Your task to perform on an android device: set an alarm Image 0: 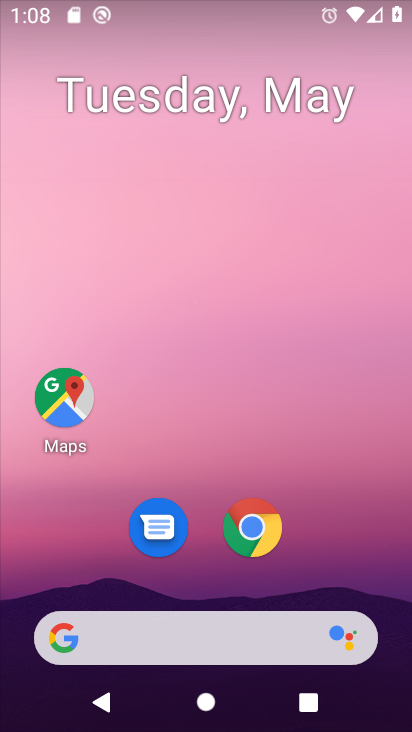
Step 0: drag from (255, 695) to (306, 0)
Your task to perform on an android device: set an alarm Image 1: 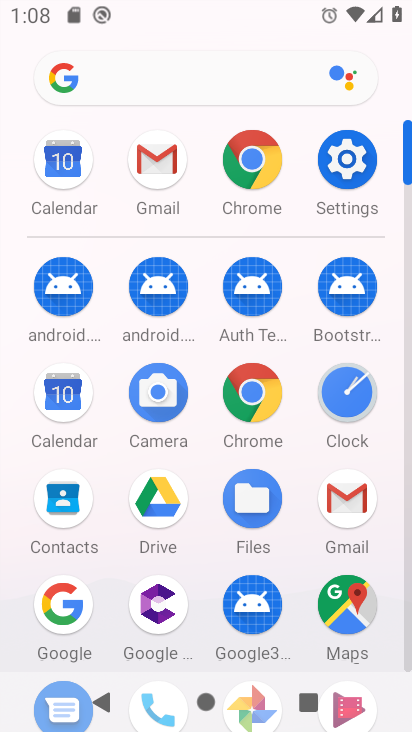
Step 1: click (338, 402)
Your task to perform on an android device: set an alarm Image 2: 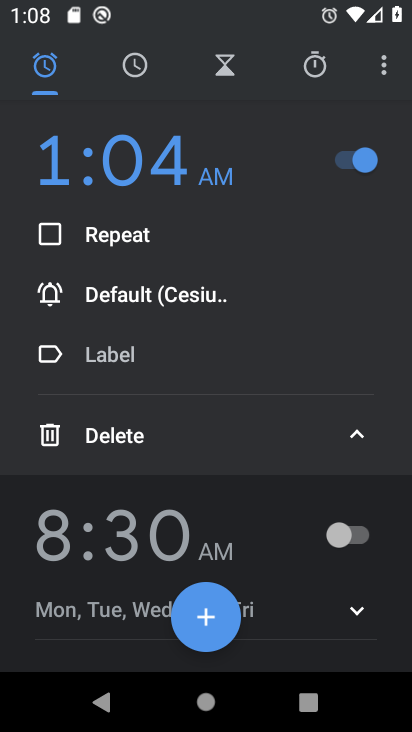
Step 2: click (191, 630)
Your task to perform on an android device: set an alarm Image 3: 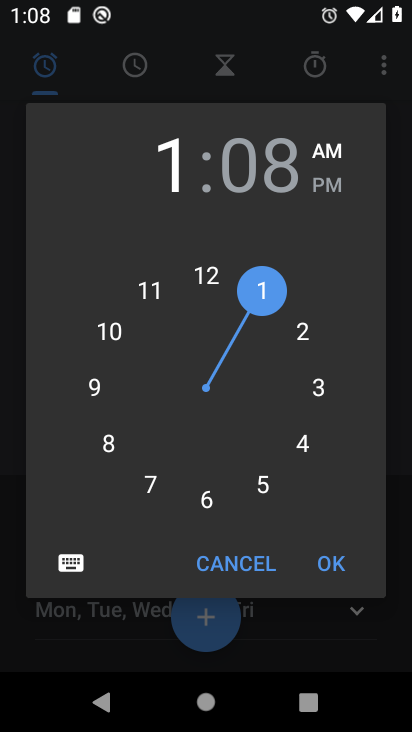
Step 3: click (325, 565)
Your task to perform on an android device: set an alarm Image 4: 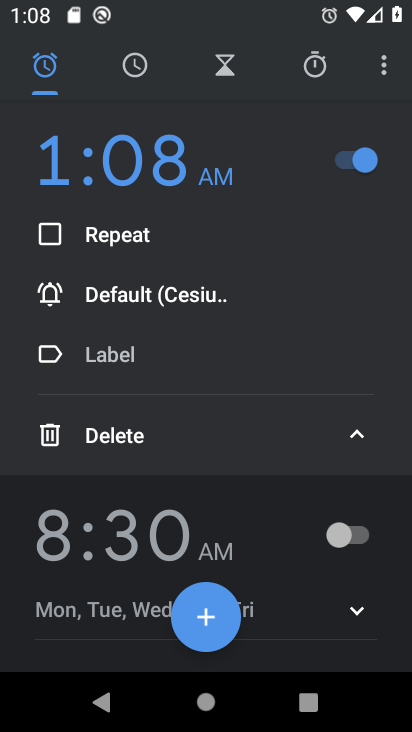
Step 4: task complete